Your task to perform on an android device: visit the assistant section in the google photos Image 0: 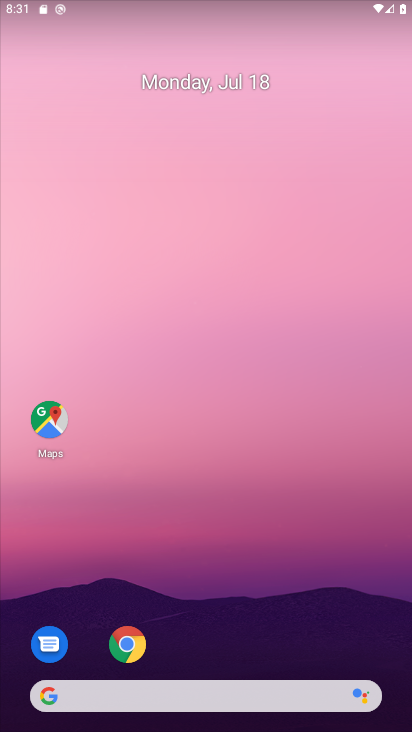
Step 0: drag from (265, 636) to (264, 62)
Your task to perform on an android device: visit the assistant section in the google photos Image 1: 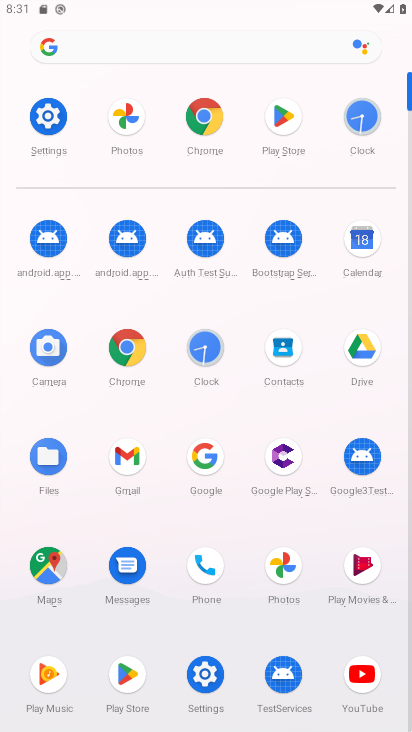
Step 1: click (271, 583)
Your task to perform on an android device: visit the assistant section in the google photos Image 2: 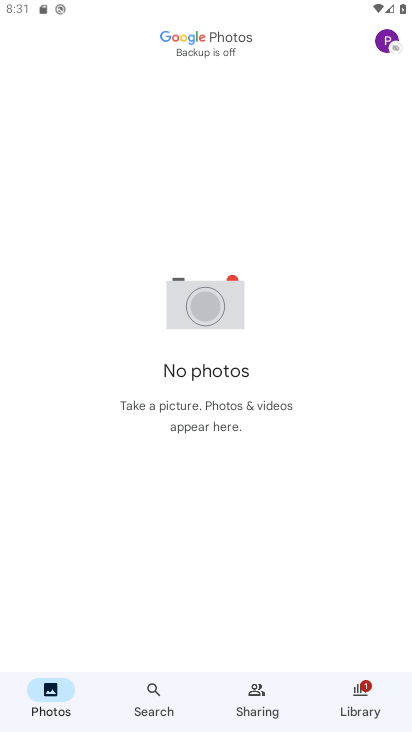
Step 2: click (372, 695)
Your task to perform on an android device: visit the assistant section in the google photos Image 3: 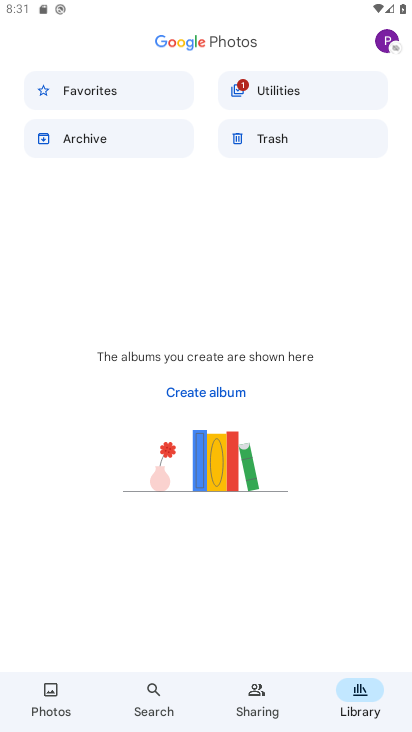
Step 3: click (262, 84)
Your task to perform on an android device: visit the assistant section in the google photos Image 4: 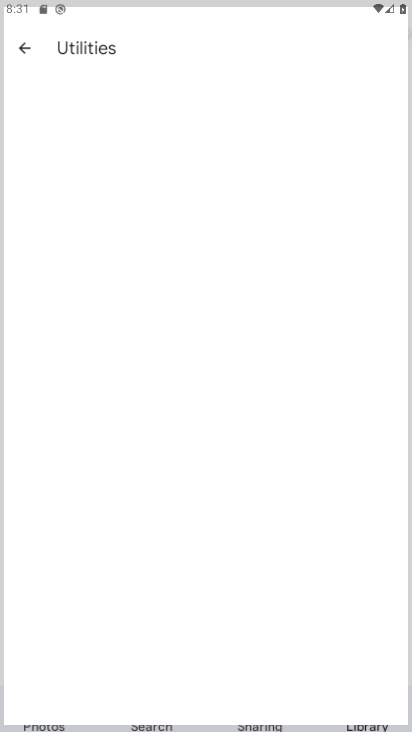
Step 4: task complete